Your task to perform on an android device: add a contact in the contacts app Image 0: 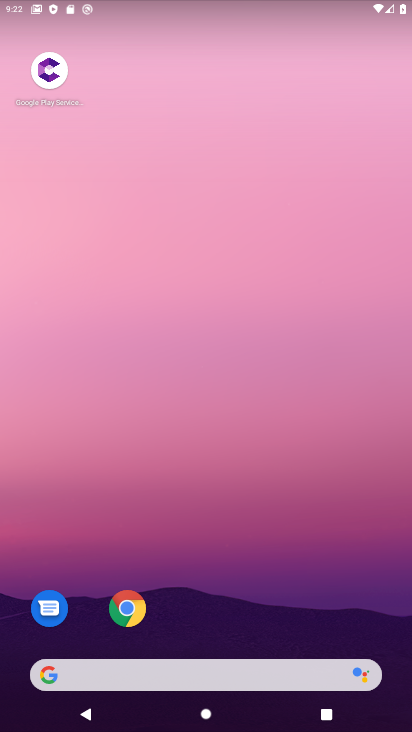
Step 0: drag from (333, 580) to (197, 71)
Your task to perform on an android device: add a contact in the contacts app Image 1: 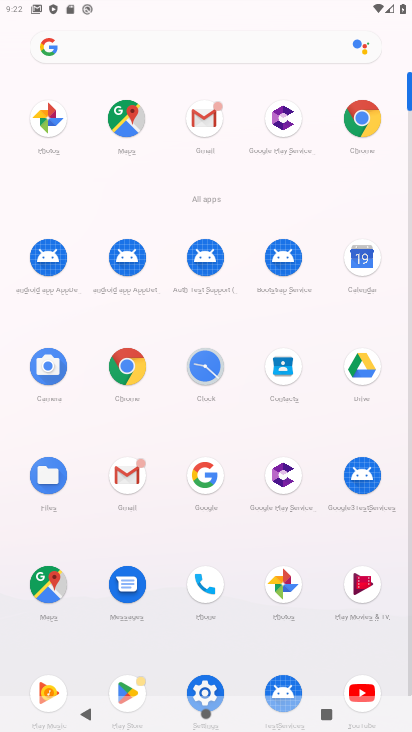
Step 1: click (288, 370)
Your task to perform on an android device: add a contact in the contacts app Image 2: 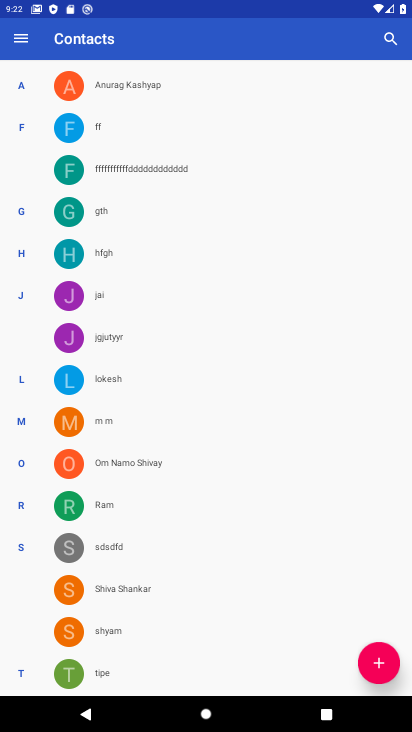
Step 2: click (390, 660)
Your task to perform on an android device: add a contact in the contacts app Image 3: 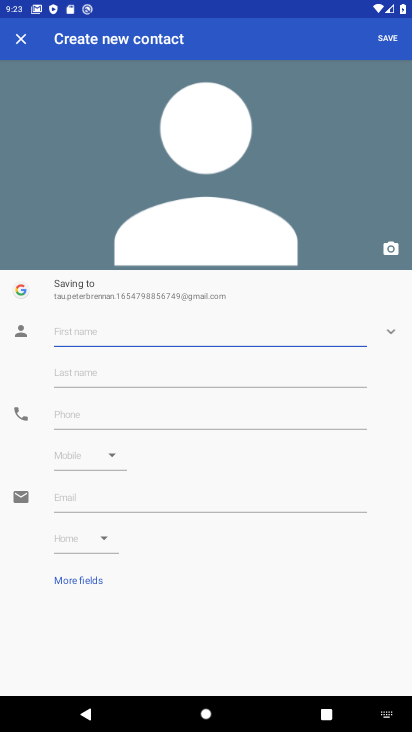
Step 3: type "golknda"
Your task to perform on an android device: add a contact in the contacts app Image 4: 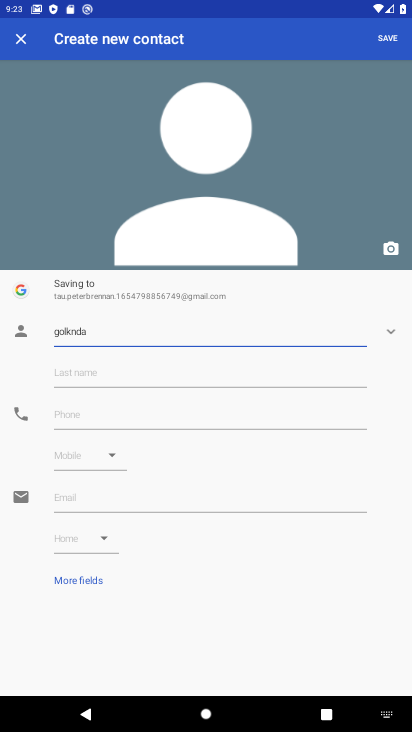
Step 4: click (389, 42)
Your task to perform on an android device: add a contact in the contacts app Image 5: 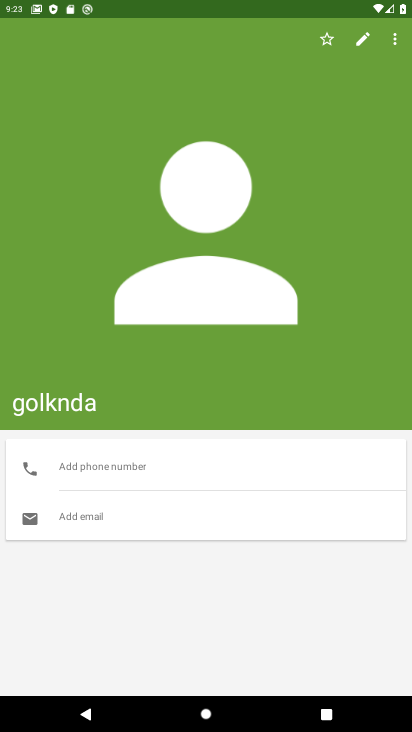
Step 5: task complete